Your task to perform on an android device: move a message to another label in the gmail app Image 0: 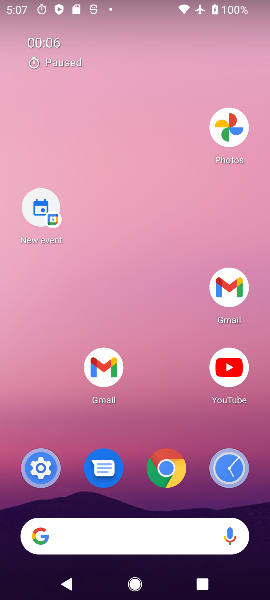
Step 0: drag from (166, 570) to (167, 287)
Your task to perform on an android device: move a message to another label in the gmail app Image 1: 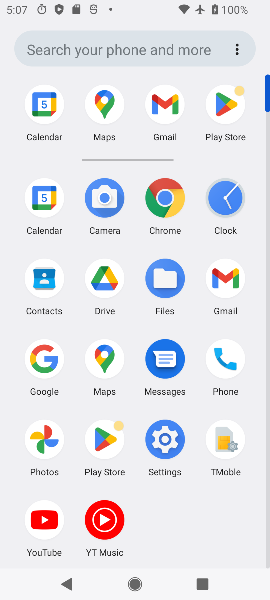
Step 1: click (221, 286)
Your task to perform on an android device: move a message to another label in the gmail app Image 2: 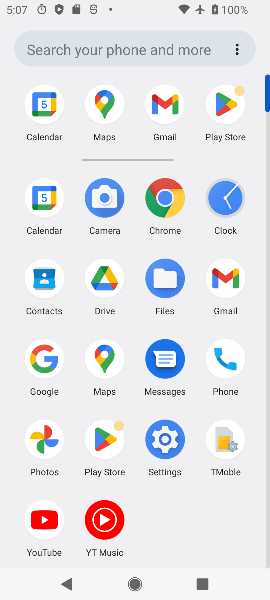
Step 2: click (221, 286)
Your task to perform on an android device: move a message to another label in the gmail app Image 3: 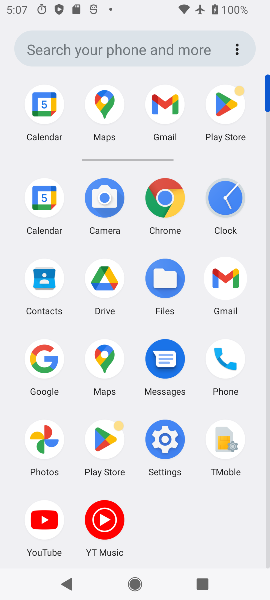
Step 3: click (221, 286)
Your task to perform on an android device: move a message to another label in the gmail app Image 4: 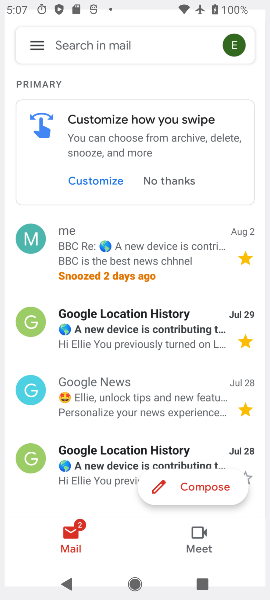
Step 4: click (221, 286)
Your task to perform on an android device: move a message to another label in the gmail app Image 5: 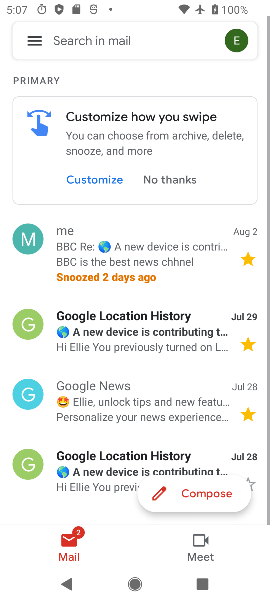
Step 5: click (221, 286)
Your task to perform on an android device: move a message to another label in the gmail app Image 6: 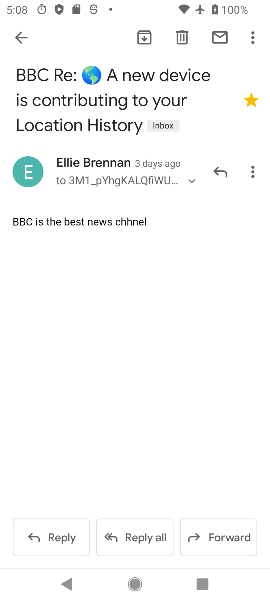
Step 6: click (249, 169)
Your task to perform on an android device: move a message to another label in the gmail app Image 7: 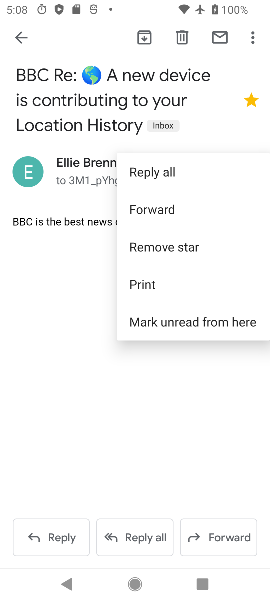
Step 7: click (70, 284)
Your task to perform on an android device: move a message to another label in the gmail app Image 8: 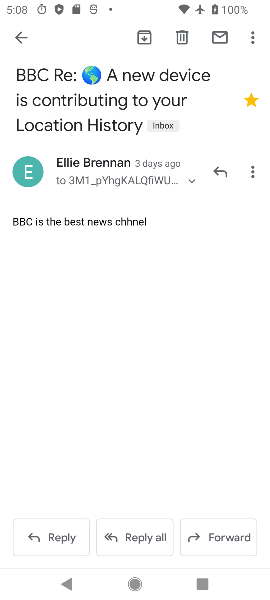
Step 8: click (70, 284)
Your task to perform on an android device: move a message to another label in the gmail app Image 9: 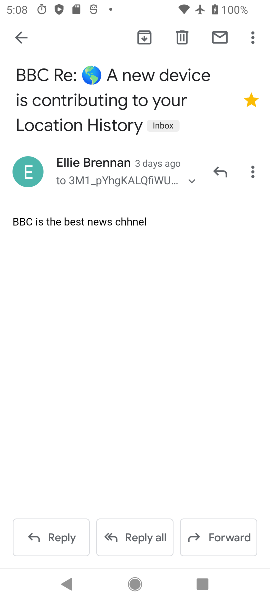
Step 9: click (15, 36)
Your task to perform on an android device: move a message to another label in the gmail app Image 10: 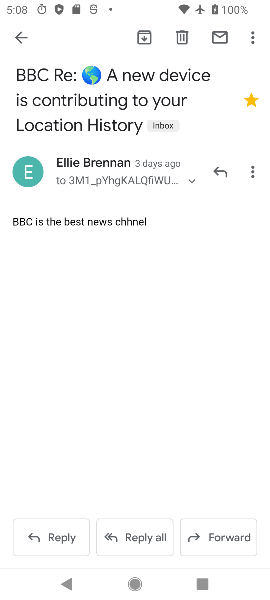
Step 10: click (18, 37)
Your task to perform on an android device: move a message to another label in the gmail app Image 11: 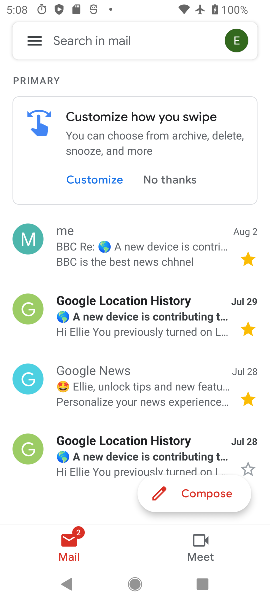
Step 11: click (249, 466)
Your task to perform on an android device: move a message to another label in the gmail app Image 12: 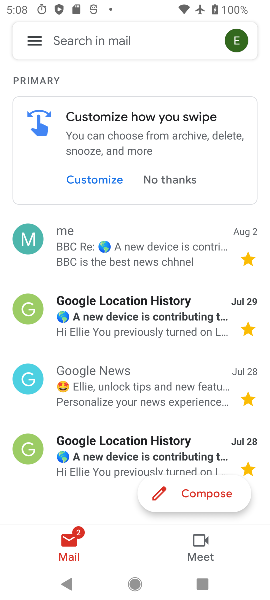
Step 12: task complete